Your task to perform on an android device: change timer sound Image 0: 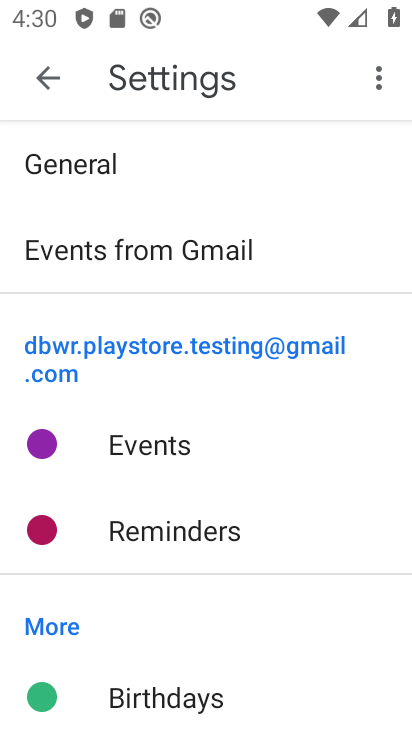
Step 0: click (43, 73)
Your task to perform on an android device: change timer sound Image 1: 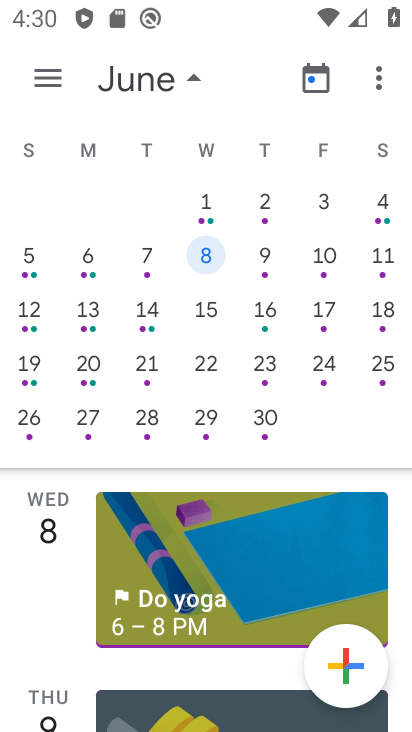
Step 1: press back button
Your task to perform on an android device: change timer sound Image 2: 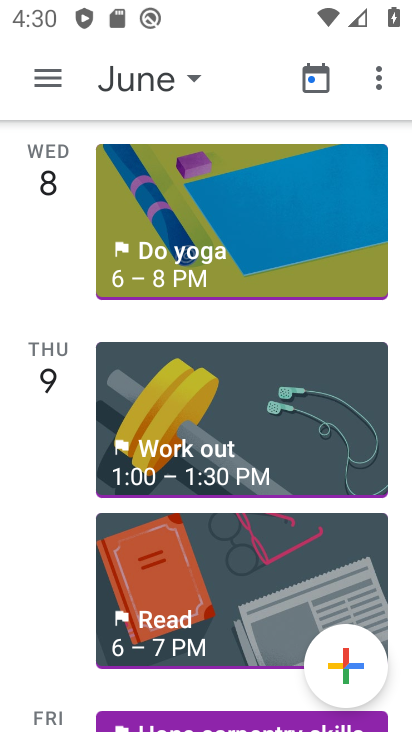
Step 2: press home button
Your task to perform on an android device: change timer sound Image 3: 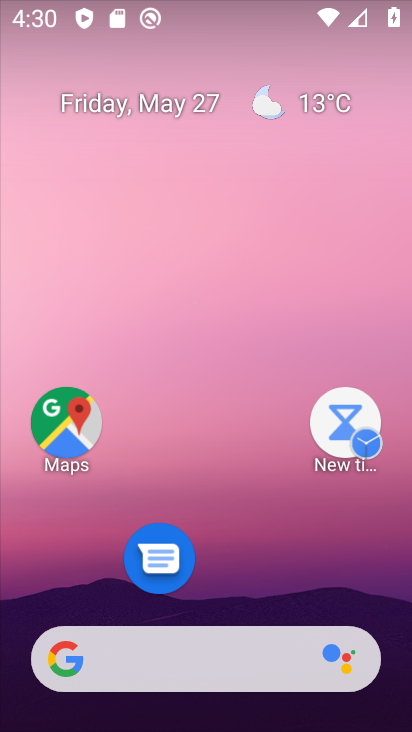
Step 3: drag from (230, 585) to (106, 68)
Your task to perform on an android device: change timer sound Image 4: 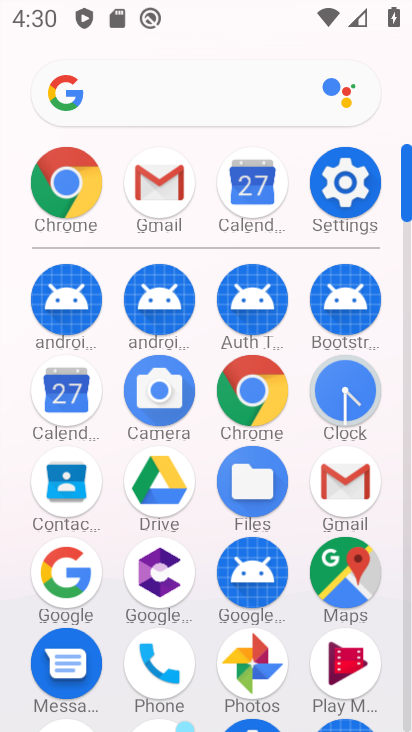
Step 4: click (326, 375)
Your task to perform on an android device: change timer sound Image 5: 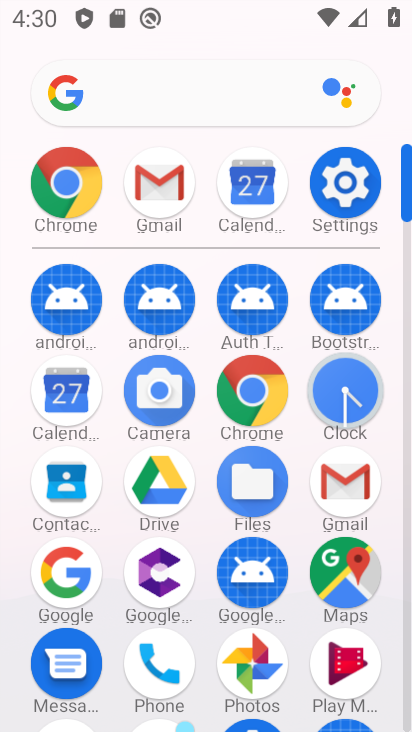
Step 5: click (328, 377)
Your task to perform on an android device: change timer sound Image 6: 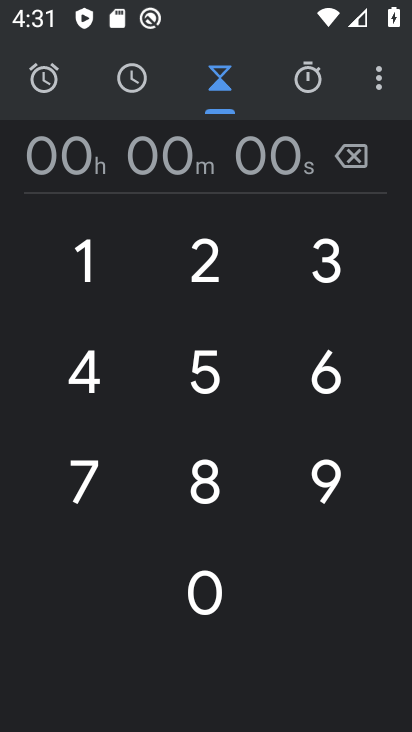
Step 6: click (379, 90)
Your task to perform on an android device: change timer sound Image 7: 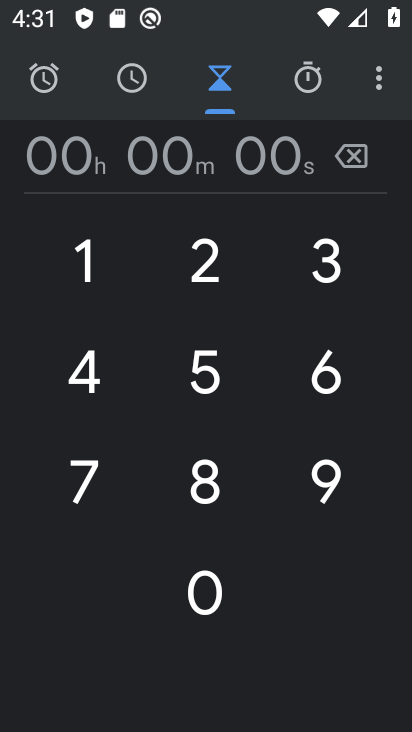
Step 7: click (284, 463)
Your task to perform on an android device: change timer sound Image 8: 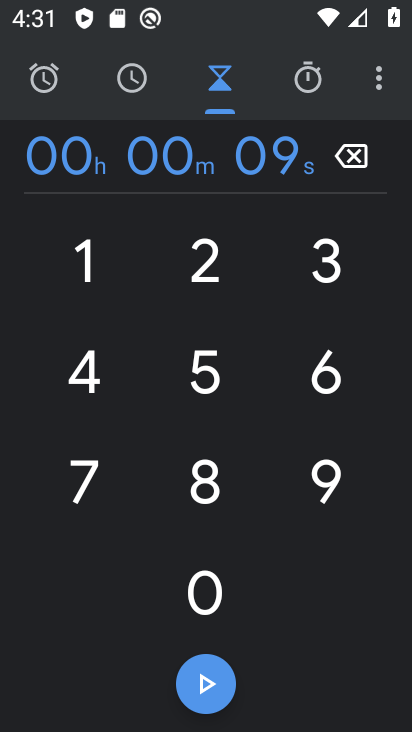
Step 8: click (208, 484)
Your task to perform on an android device: change timer sound Image 9: 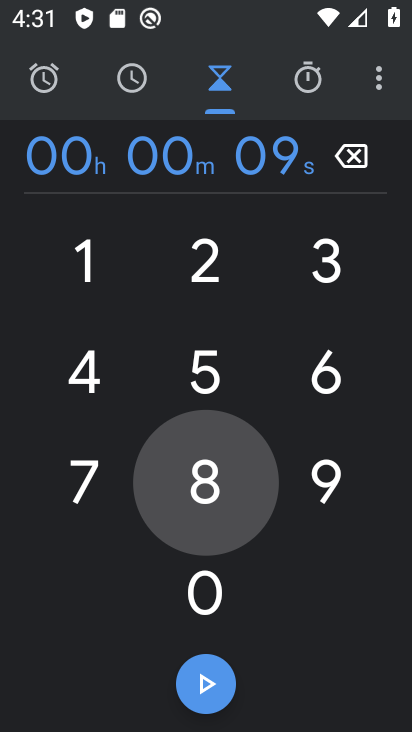
Step 9: click (208, 484)
Your task to perform on an android device: change timer sound Image 10: 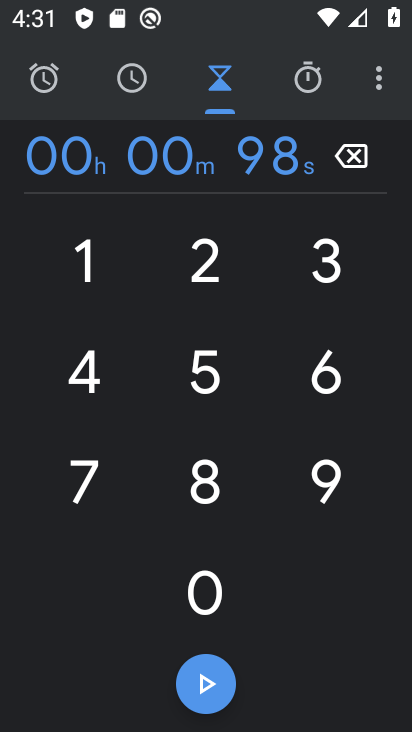
Step 10: click (208, 484)
Your task to perform on an android device: change timer sound Image 11: 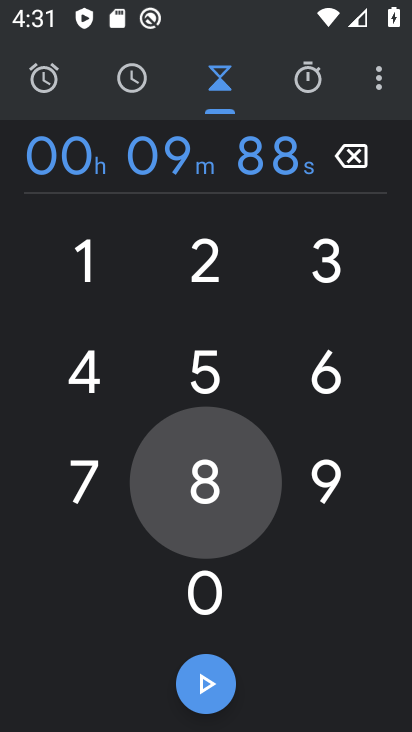
Step 11: click (208, 484)
Your task to perform on an android device: change timer sound Image 12: 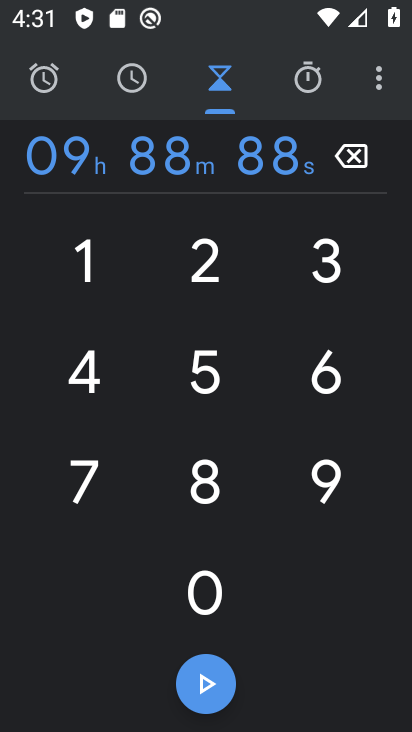
Step 12: click (198, 685)
Your task to perform on an android device: change timer sound Image 13: 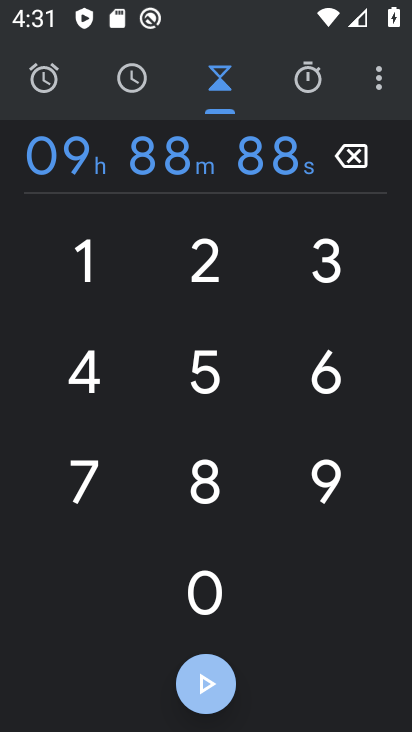
Step 13: click (203, 680)
Your task to perform on an android device: change timer sound Image 14: 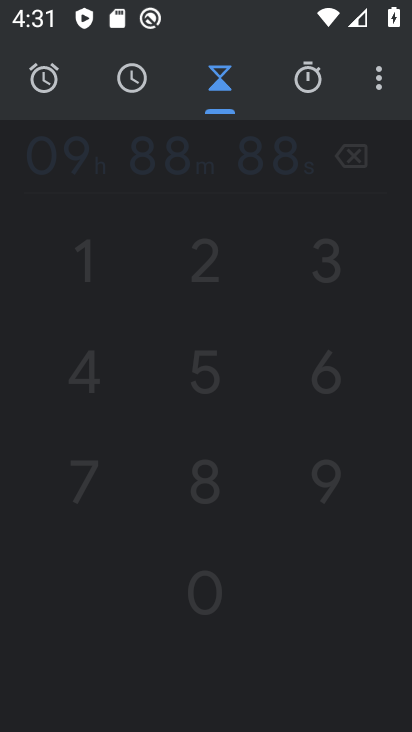
Step 14: click (203, 680)
Your task to perform on an android device: change timer sound Image 15: 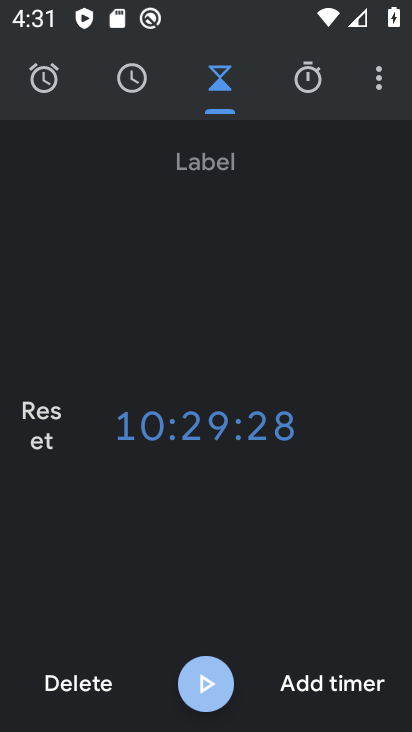
Step 15: click (203, 680)
Your task to perform on an android device: change timer sound Image 16: 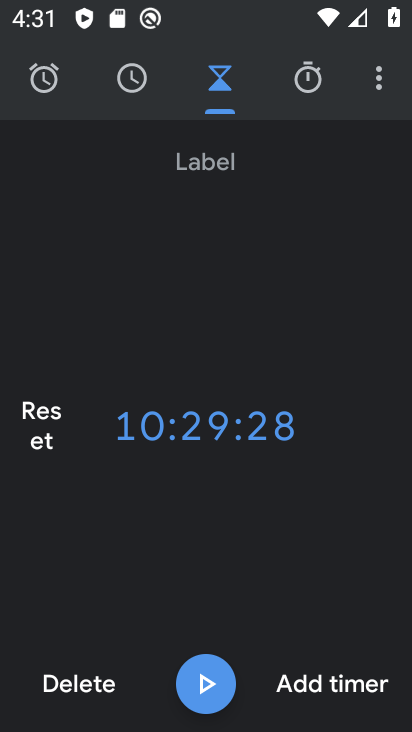
Step 16: click (214, 682)
Your task to perform on an android device: change timer sound Image 17: 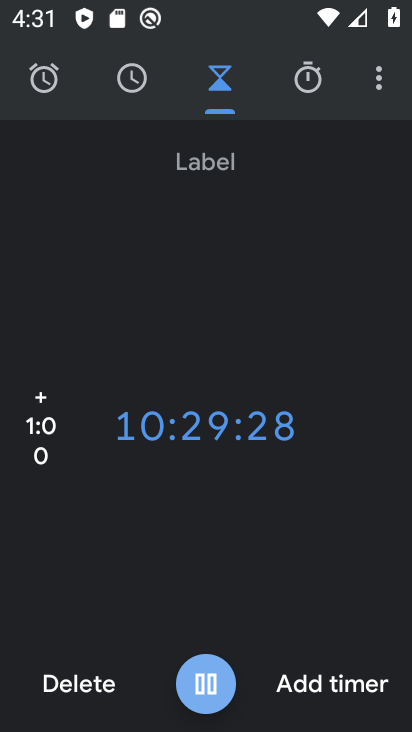
Step 17: click (198, 686)
Your task to perform on an android device: change timer sound Image 18: 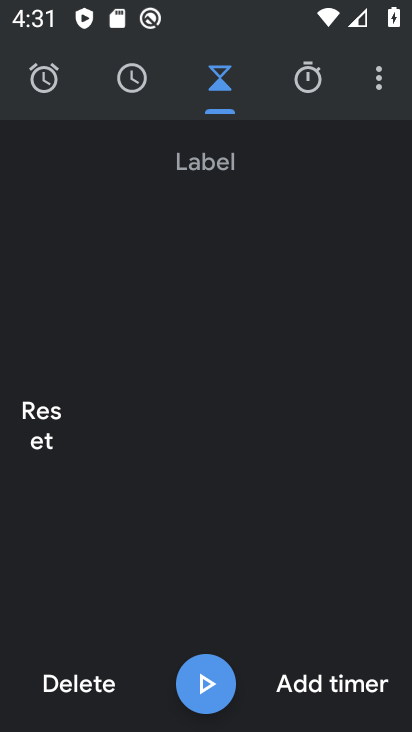
Step 18: click (197, 684)
Your task to perform on an android device: change timer sound Image 19: 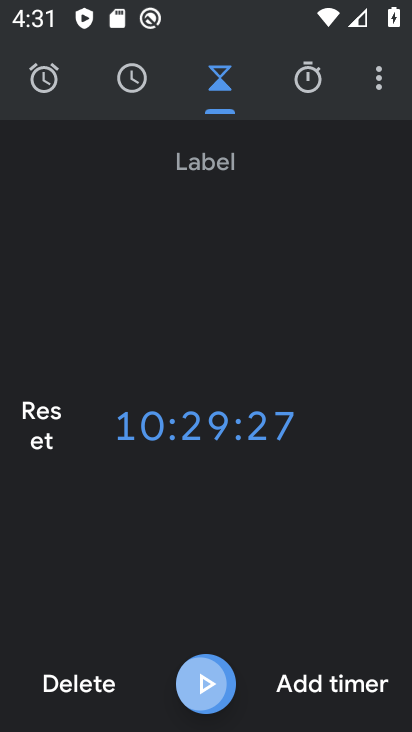
Step 19: click (197, 684)
Your task to perform on an android device: change timer sound Image 20: 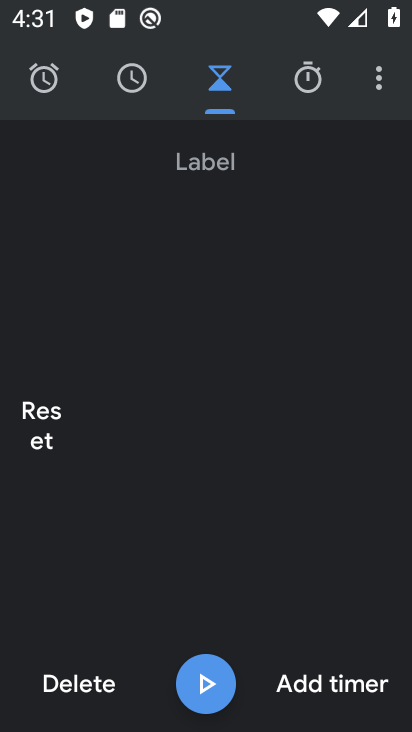
Step 20: click (208, 682)
Your task to perform on an android device: change timer sound Image 21: 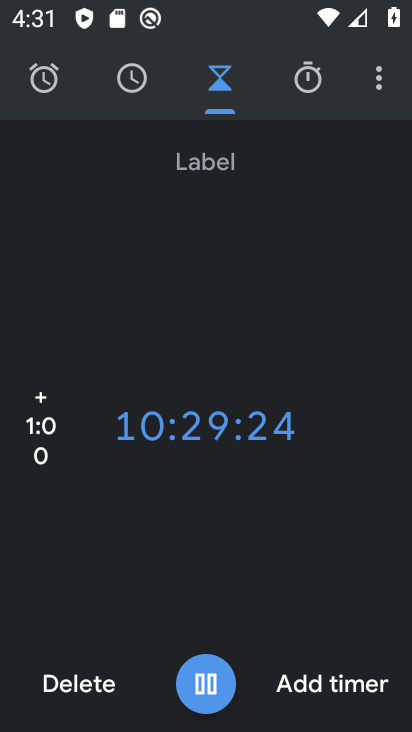
Step 21: click (206, 685)
Your task to perform on an android device: change timer sound Image 22: 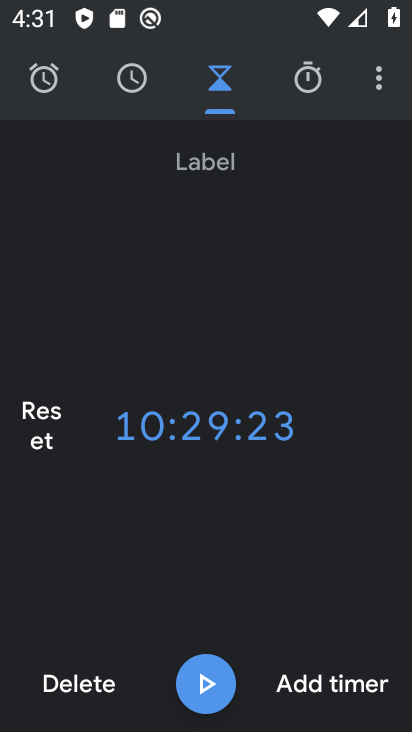
Step 22: click (204, 688)
Your task to perform on an android device: change timer sound Image 23: 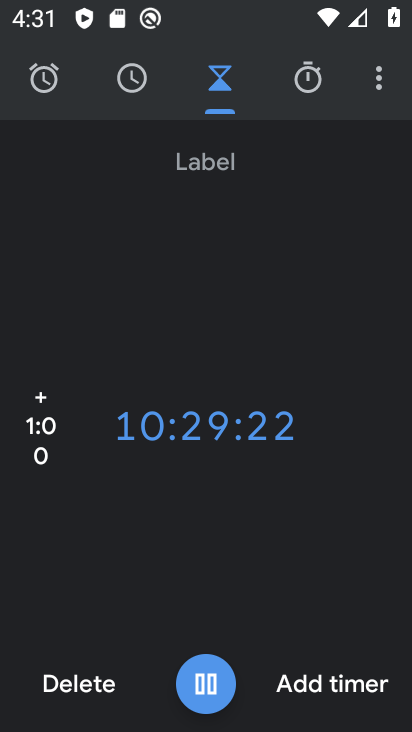
Step 23: click (315, 676)
Your task to perform on an android device: change timer sound Image 24: 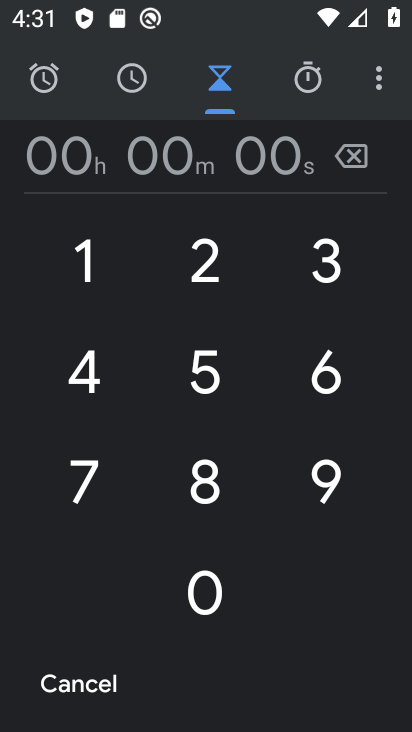
Step 24: task complete